Your task to perform on an android device: Open Wikipedia Image 0: 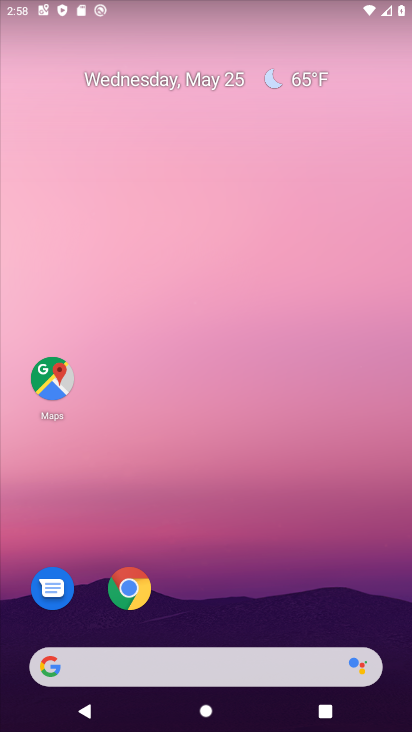
Step 0: click (126, 587)
Your task to perform on an android device: Open Wikipedia Image 1: 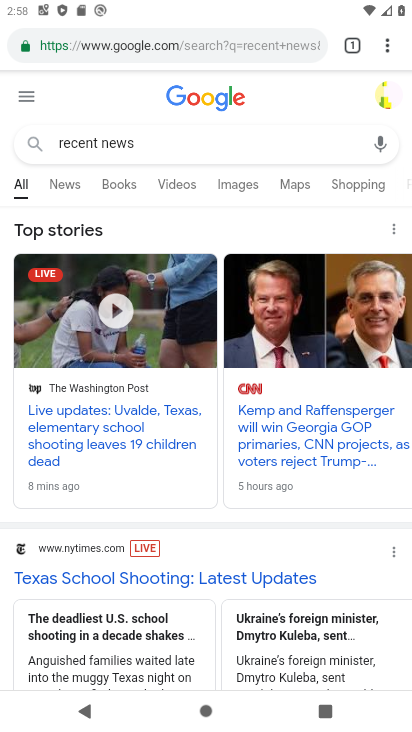
Step 1: click (140, 43)
Your task to perform on an android device: Open Wikipedia Image 2: 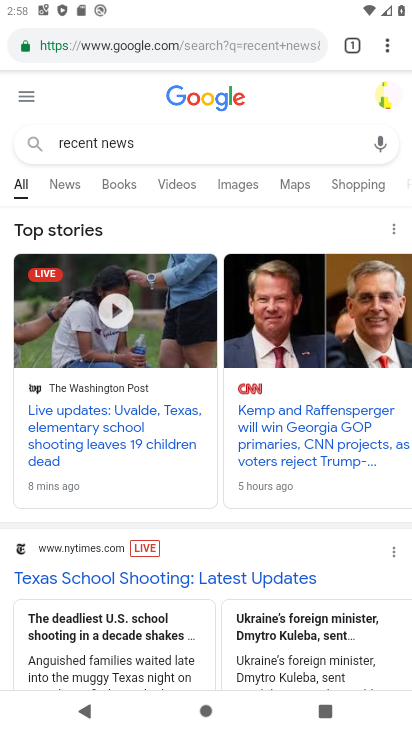
Step 2: type "wikipedia"
Your task to perform on an android device: Open Wikipedia Image 3: 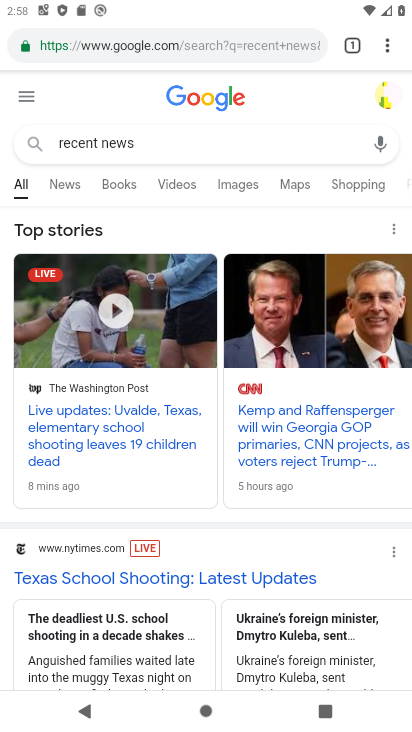
Step 3: click (158, 43)
Your task to perform on an android device: Open Wikipedia Image 4: 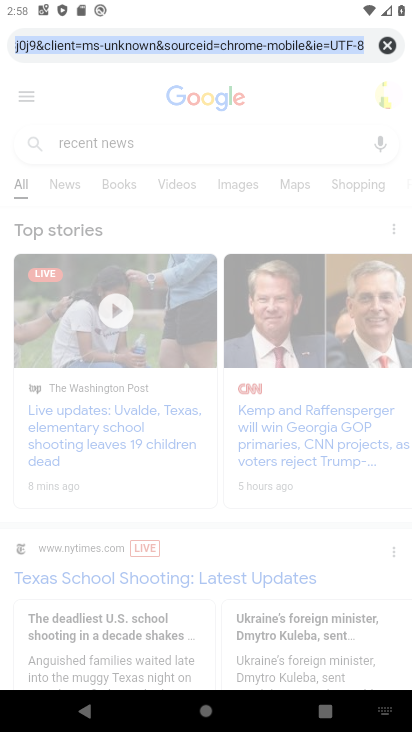
Step 4: type "wikipedia"
Your task to perform on an android device: Open Wikipedia Image 5: 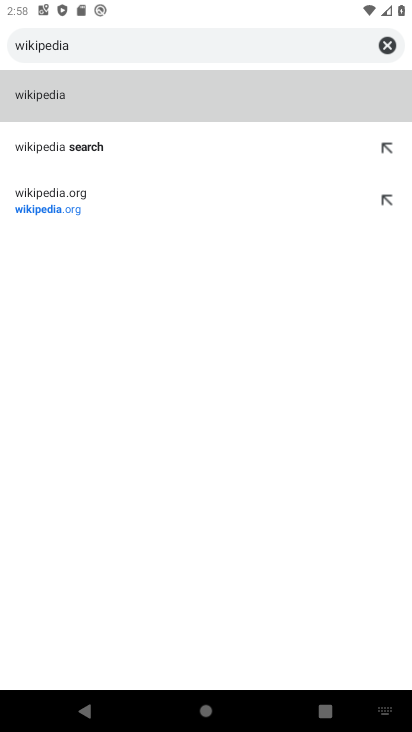
Step 5: click (101, 108)
Your task to perform on an android device: Open Wikipedia Image 6: 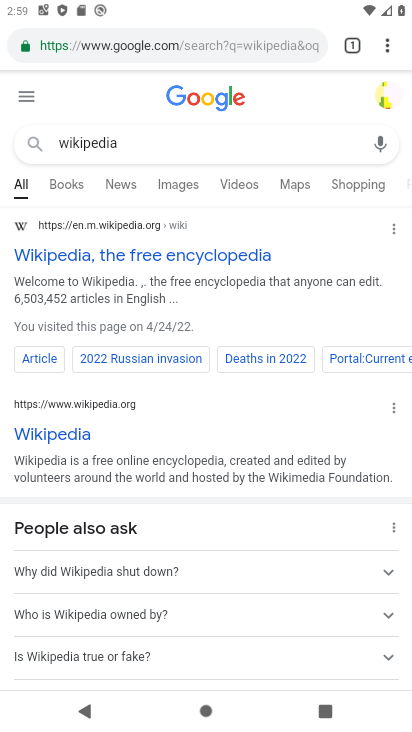
Step 6: task complete